Your task to perform on an android device: set an alarm Image 0: 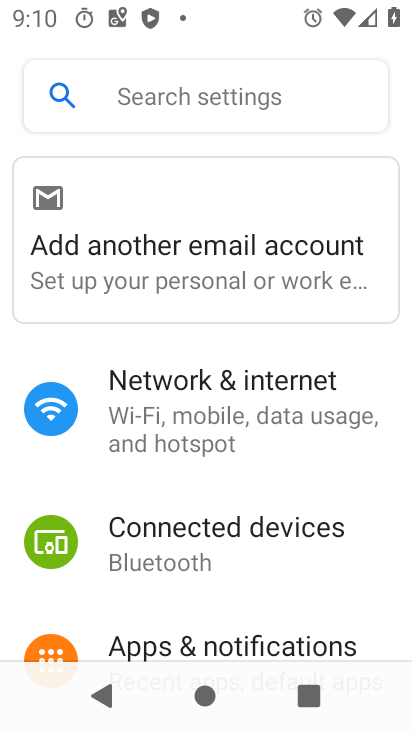
Step 0: press home button
Your task to perform on an android device: set an alarm Image 1: 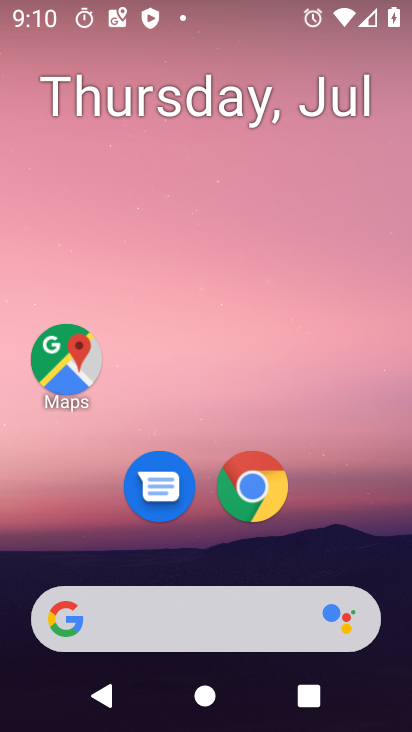
Step 1: drag from (289, 672) to (311, 216)
Your task to perform on an android device: set an alarm Image 2: 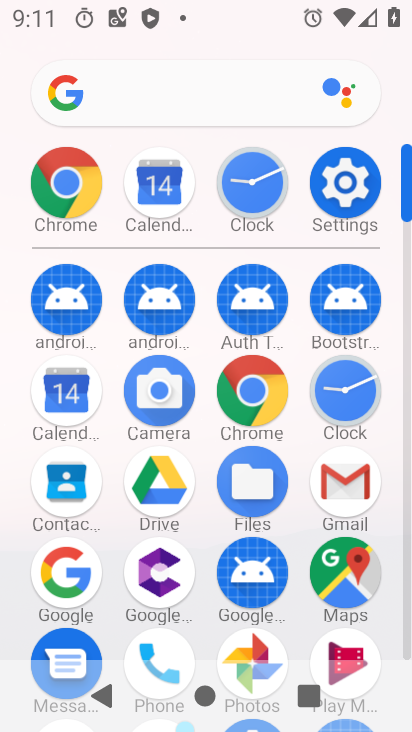
Step 2: click (347, 401)
Your task to perform on an android device: set an alarm Image 3: 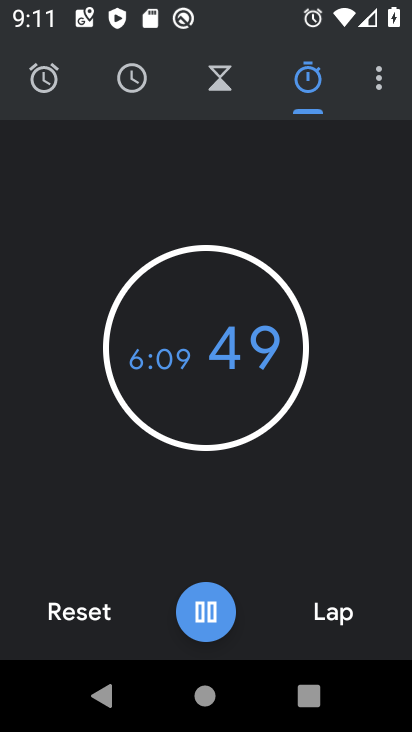
Step 3: click (70, 84)
Your task to perform on an android device: set an alarm Image 4: 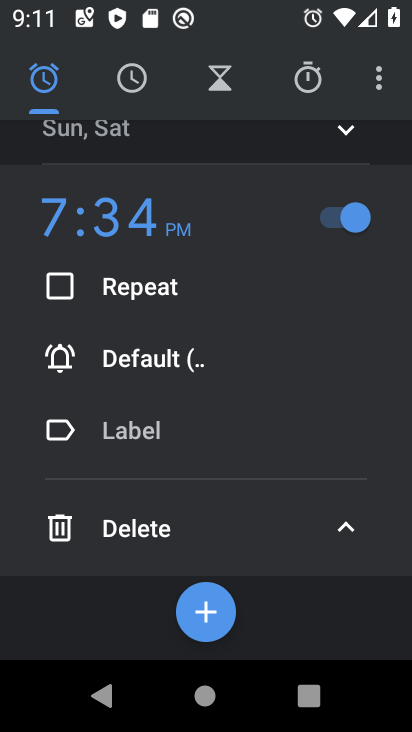
Step 4: click (205, 618)
Your task to perform on an android device: set an alarm Image 5: 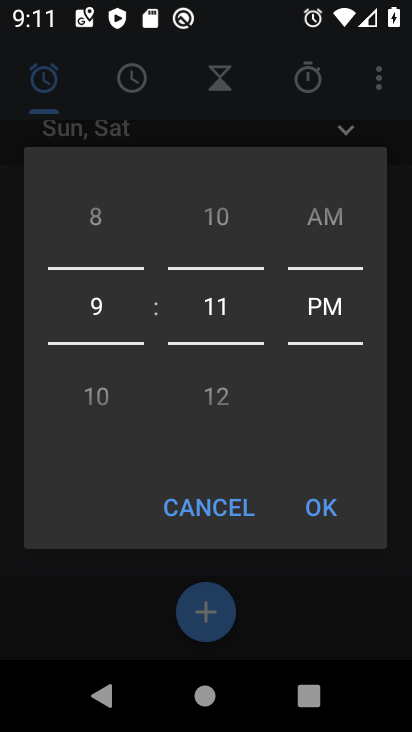
Step 5: click (308, 511)
Your task to perform on an android device: set an alarm Image 6: 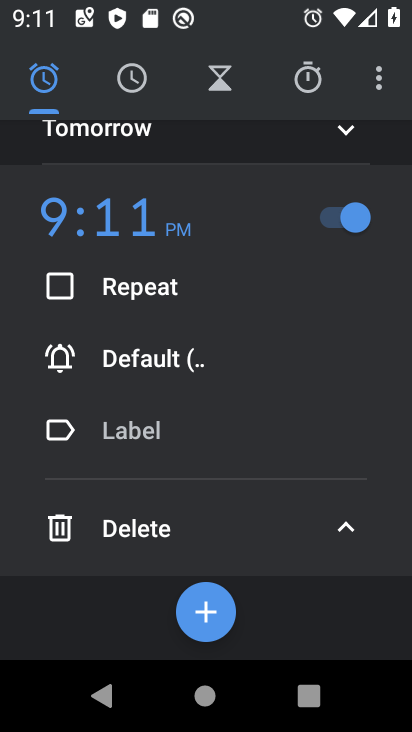
Step 6: task complete